Your task to perform on an android device: turn on priority inbox in the gmail app Image 0: 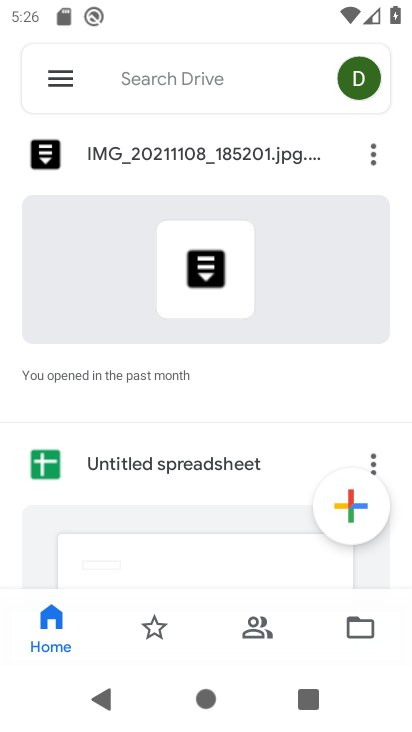
Step 0: press home button
Your task to perform on an android device: turn on priority inbox in the gmail app Image 1: 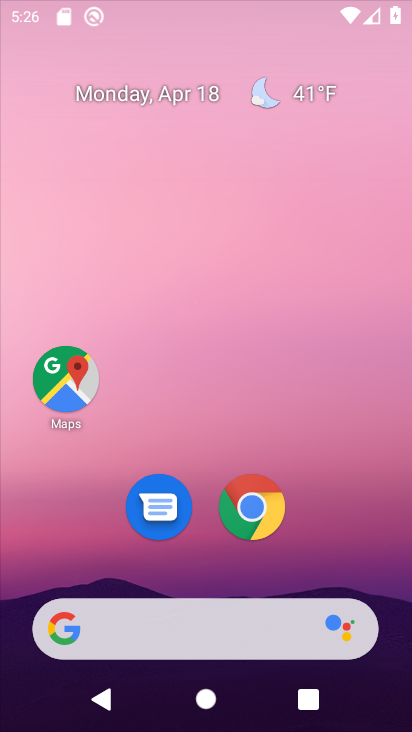
Step 1: drag from (279, 521) to (227, 214)
Your task to perform on an android device: turn on priority inbox in the gmail app Image 2: 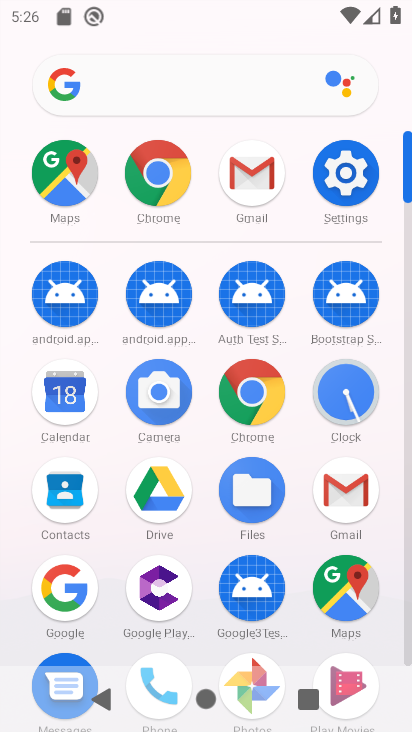
Step 2: click (351, 480)
Your task to perform on an android device: turn on priority inbox in the gmail app Image 3: 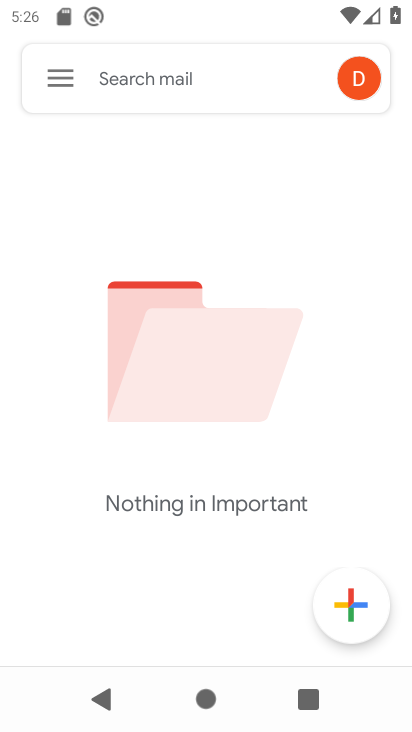
Step 3: click (70, 72)
Your task to perform on an android device: turn on priority inbox in the gmail app Image 4: 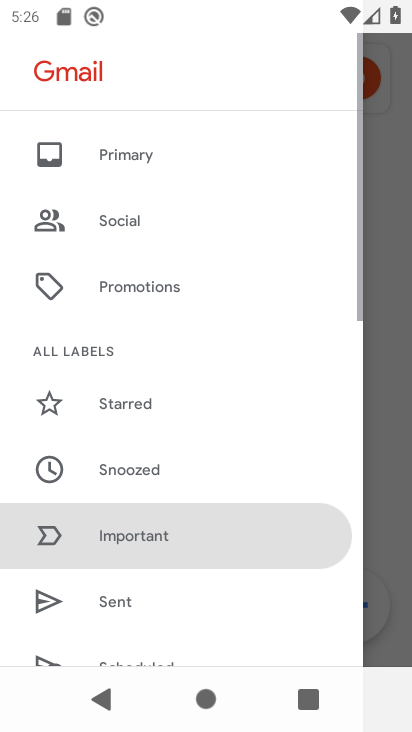
Step 4: drag from (206, 434) to (197, 63)
Your task to perform on an android device: turn on priority inbox in the gmail app Image 5: 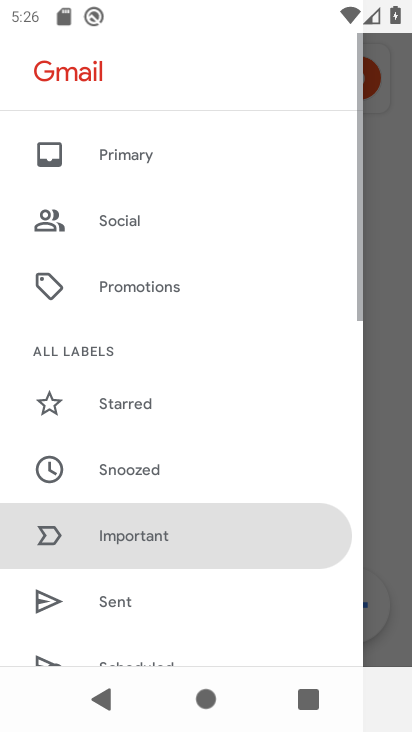
Step 5: drag from (250, 576) to (236, 227)
Your task to perform on an android device: turn on priority inbox in the gmail app Image 6: 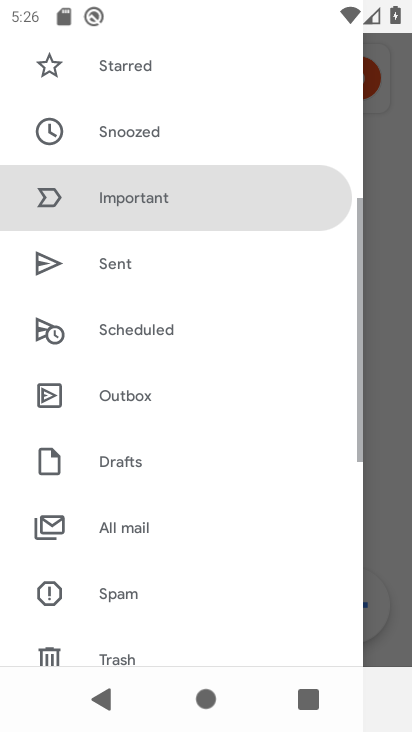
Step 6: drag from (208, 608) to (157, 176)
Your task to perform on an android device: turn on priority inbox in the gmail app Image 7: 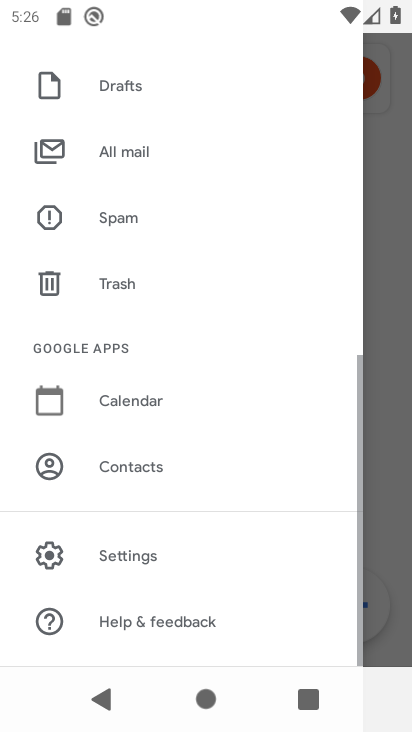
Step 7: click (154, 568)
Your task to perform on an android device: turn on priority inbox in the gmail app Image 8: 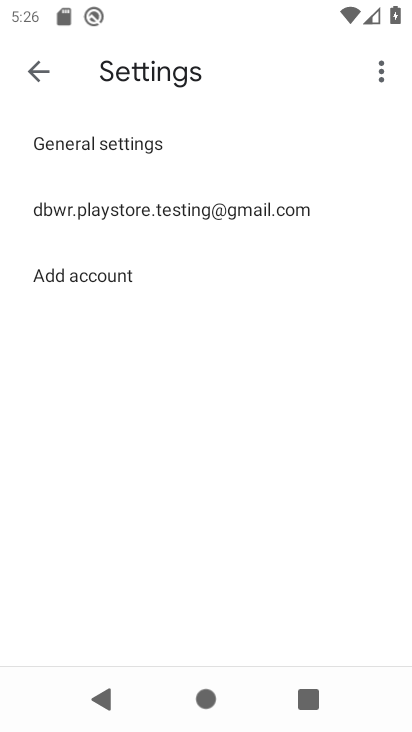
Step 8: click (193, 207)
Your task to perform on an android device: turn on priority inbox in the gmail app Image 9: 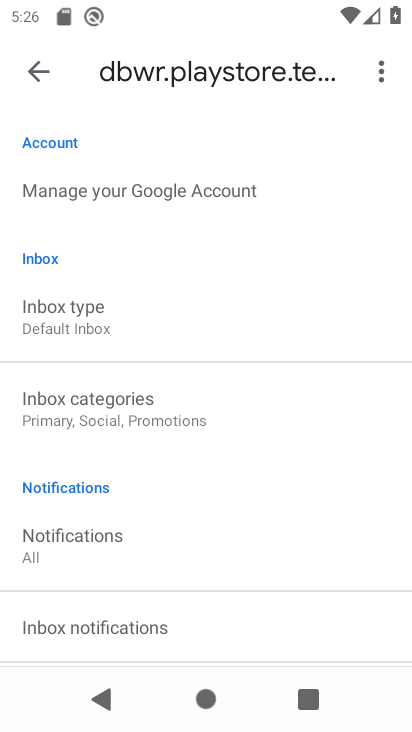
Step 9: click (136, 327)
Your task to perform on an android device: turn on priority inbox in the gmail app Image 10: 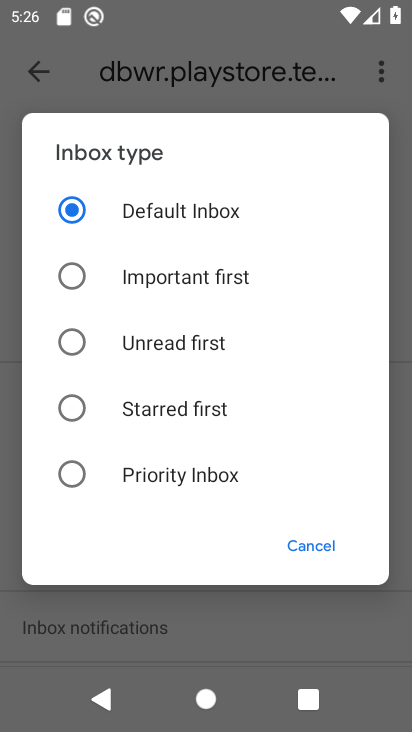
Step 10: click (131, 471)
Your task to perform on an android device: turn on priority inbox in the gmail app Image 11: 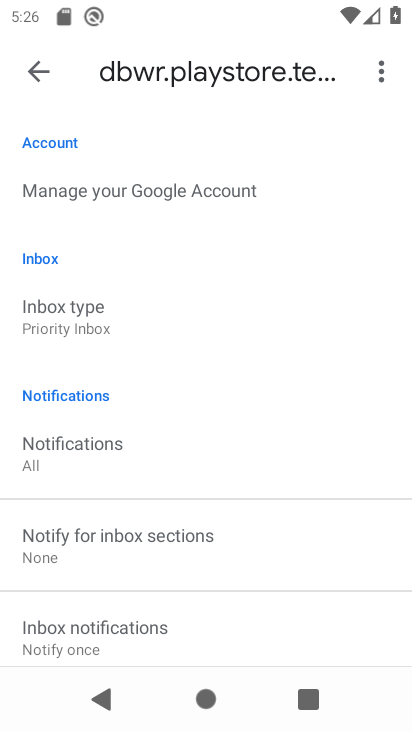
Step 11: task complete